Your task to perform on an android device: add a label to a message in the gmail app Image 0: 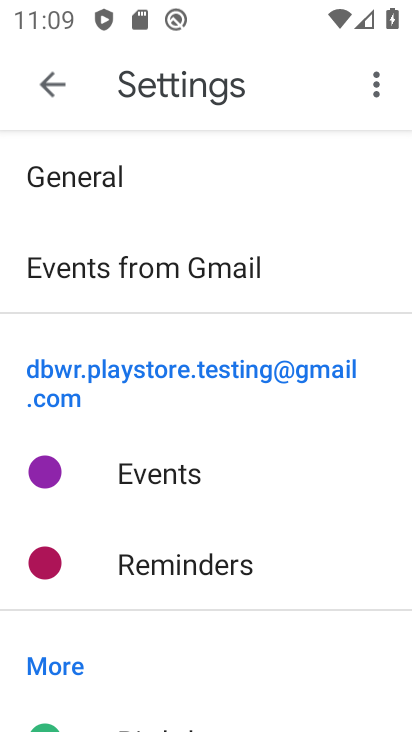
Step 0: press home button
Your task to perform on an android device: add a label to a message in the gmail app Image 1: 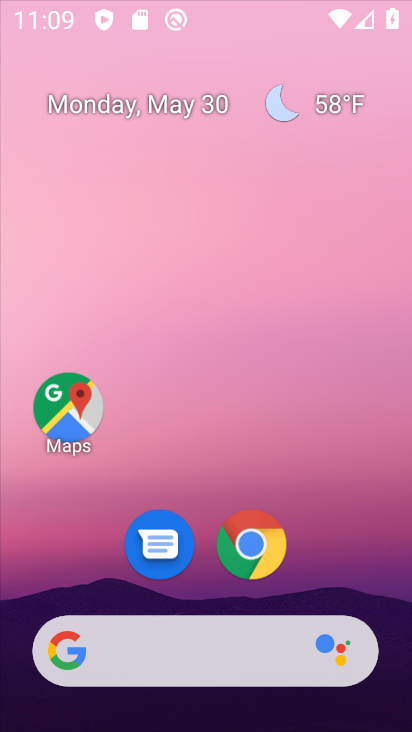
Step 1: task complete